Your task to perform on an android device: turn off wifi Image 0: 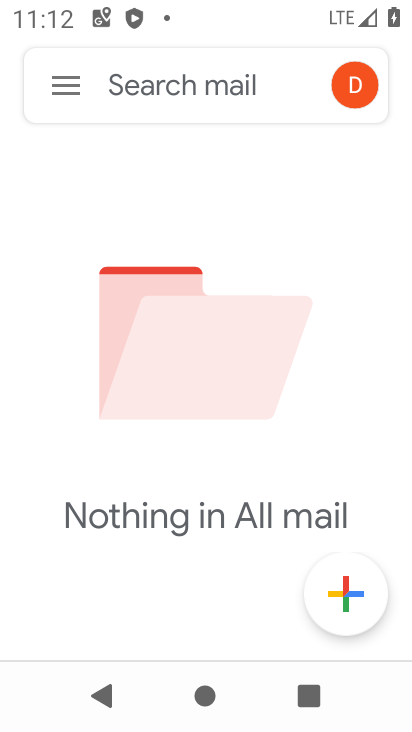
Step 0: press home button
Your task to perform on an android device: turn off wifi Image 1: 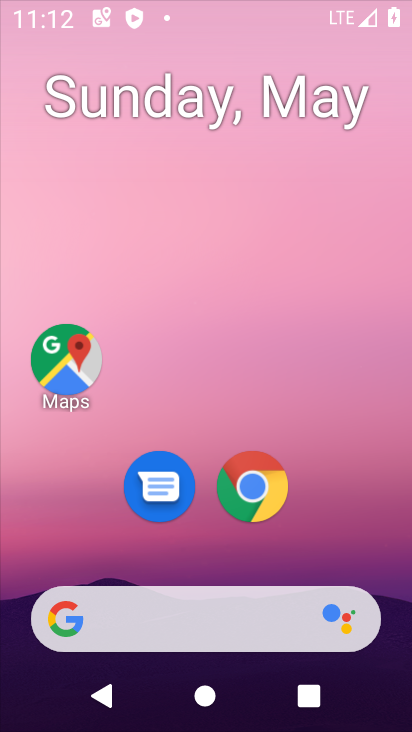
Step 1: drag from (222, 546) to (251, 83)
Your task to perform on an android device: turn off wifi Image 2: 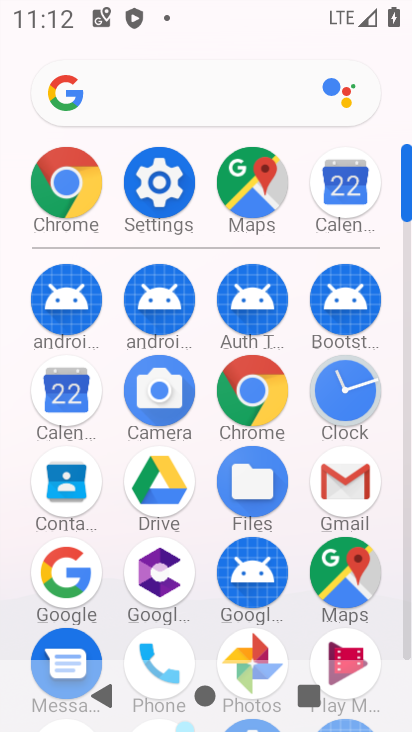
Step 2: click (164, 183)
Your task to perform on an android device: turn off wifi Image 3: 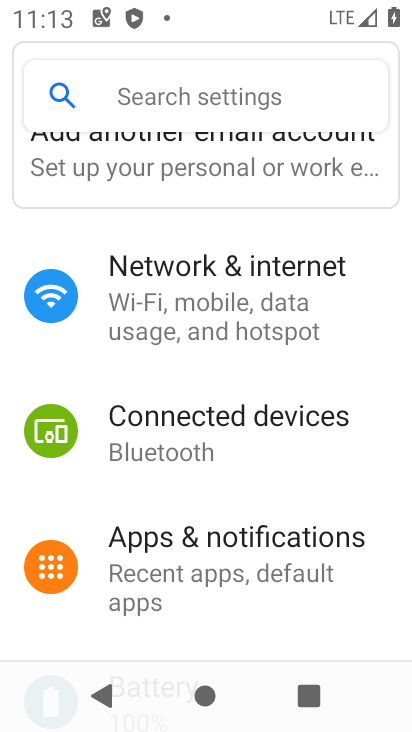
Step 3: click (145, 299)
Your task to perform on an android device: turn off wifi Image 4: 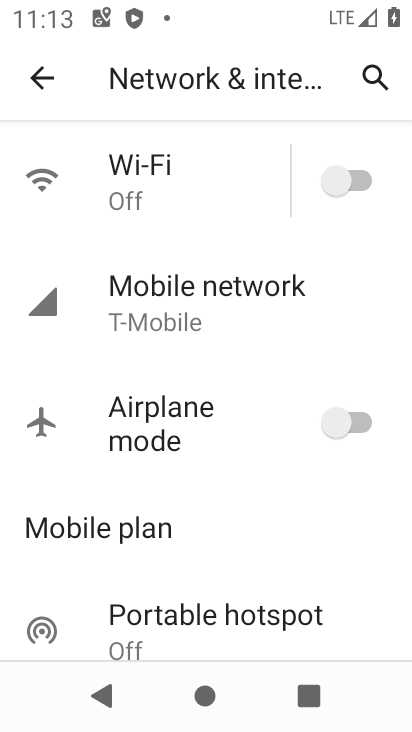
Step 4: task complete